Your task to perform on an android device: Open the phone app and click the voicemail tab. Image 0: 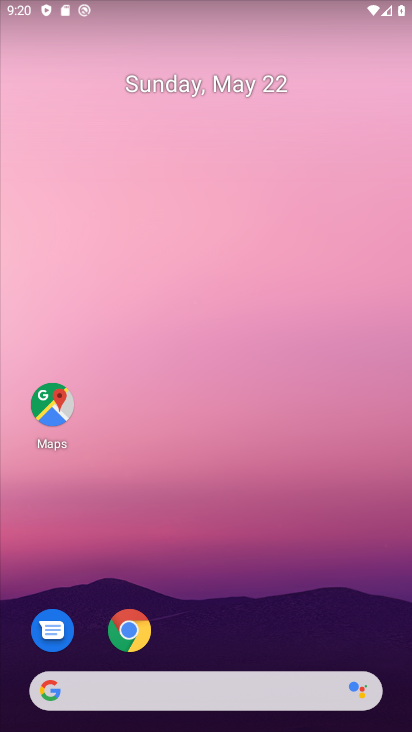
Step 0: drag from (390, 664) to (352, 181)
Your task to perform on an android device: Open the phone app and click the voicemail tab. Image 1: 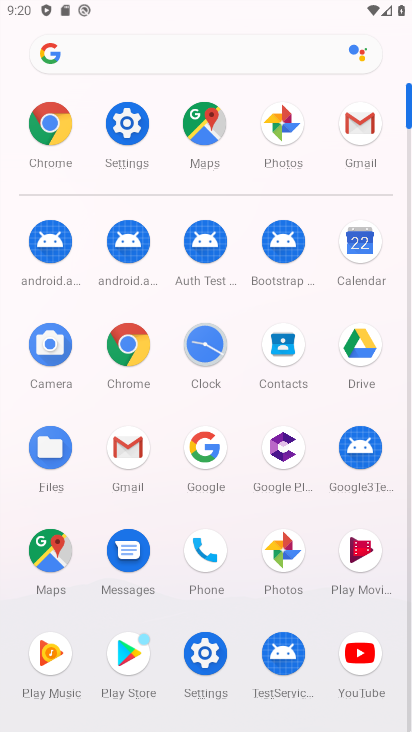
Step 1: click (210, 550)
Your task to perform on an android device: Open the phone app and click the voicemail tab. Image 2: 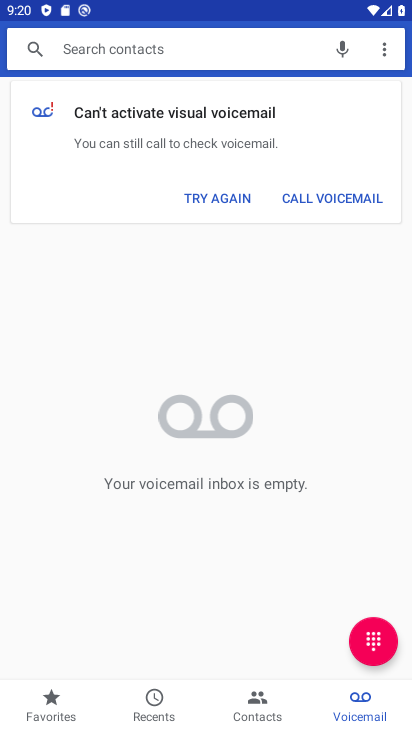
Step 2: click (352, 706)
Your task to perform on an android device: Open the phone app and click the voicemail tab. Image 3: 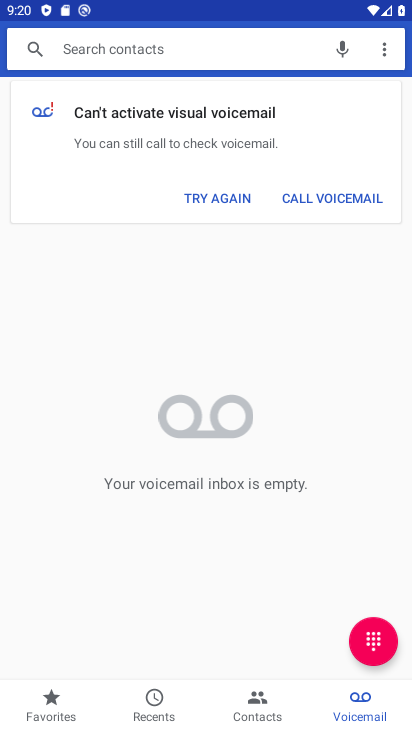
Step 3: task complete